Your task to perform on an android device: open the mobile data screen to see how much data has been used Image 0: 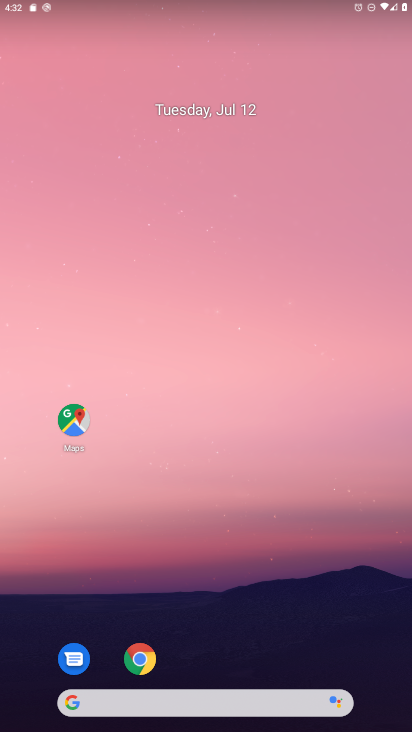
Step 0: drag from (208, 550) to (231, 221)
Your task to perform on an android device: open the mobile data screen to see how much data has been used Image 1: 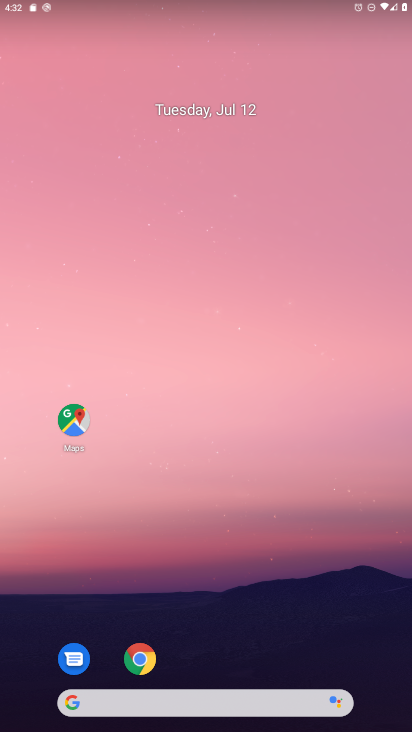
Step 1: drag from (168, 190) to (159, 146)
Your task to perform on an android device: open the mobile data screen to see how much data has been used Image 2: 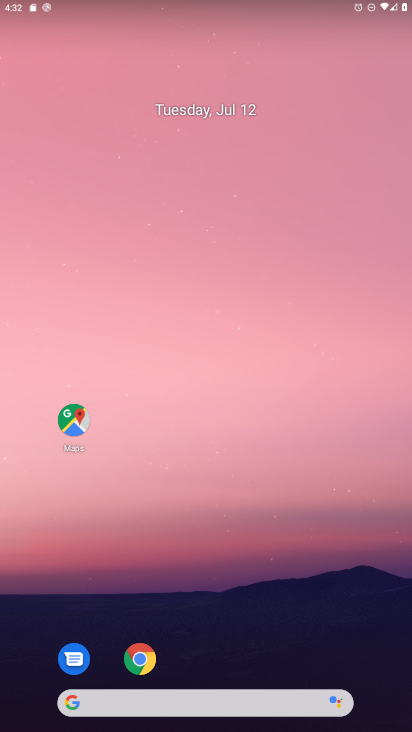
Step 2: drag from (184, 535) to (196, 54)
Your task to perform on an android device: open the mobile data screen to see how much data has been used Image 3: 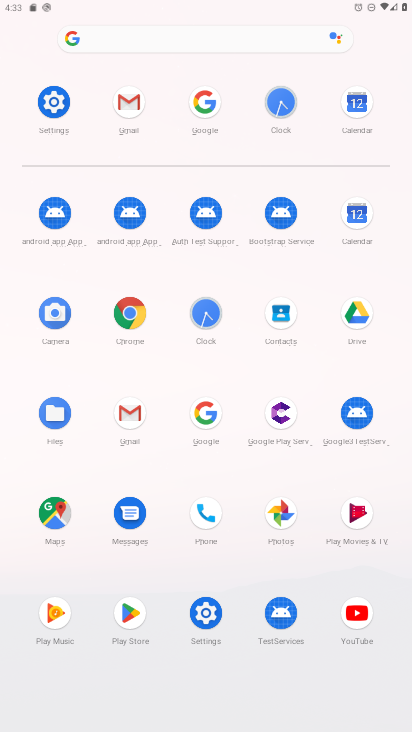
Step 3: click (57, 112)
Your task to perform on an android device: open the mobile data screen to see how much data has been used Image 4: 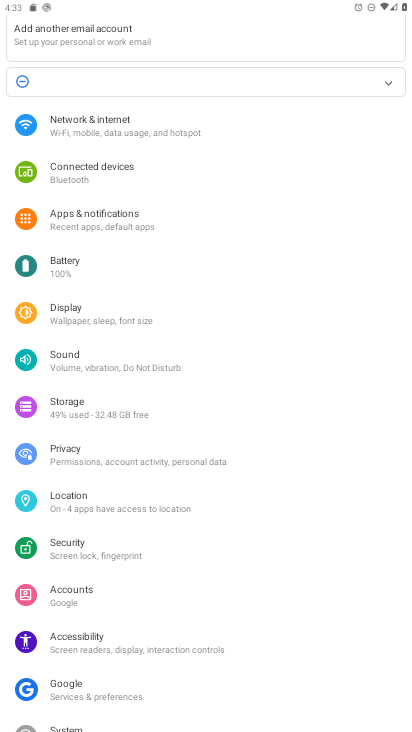
Step 4: click (69, 120)
Your task to perform on an android device: open the mobile data screen to see how much data has been used Image 5: 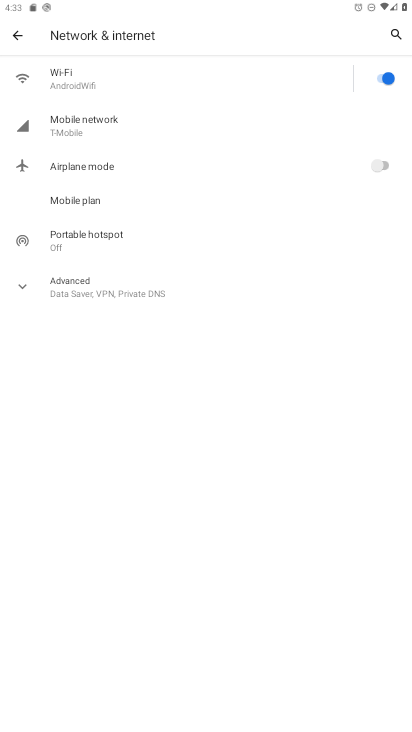
Step 5: click (81, 83)
Your task to perform on an android device: open the mobile data screen to see how much data has been used Image 6: 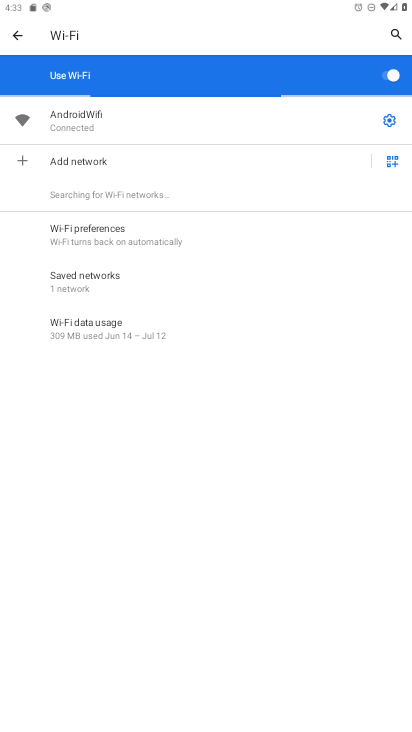
Step 6: task complete